Your task to perform on an android device: Is it going to rain this weekend? Image 0: 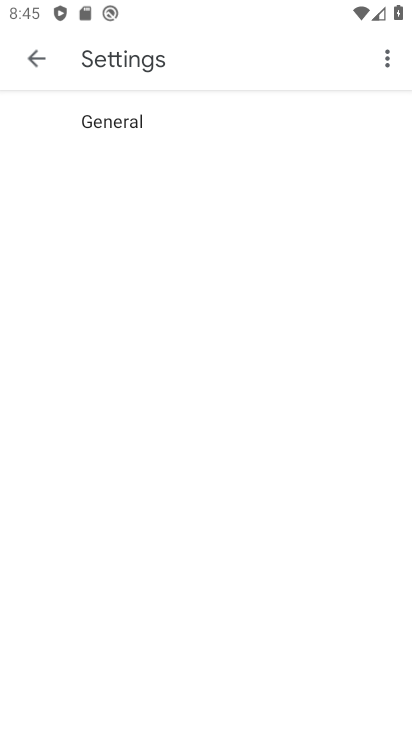
Step 0: press home button
Your task to perform on an android device: Is it going to rain this weekend? Image 1: 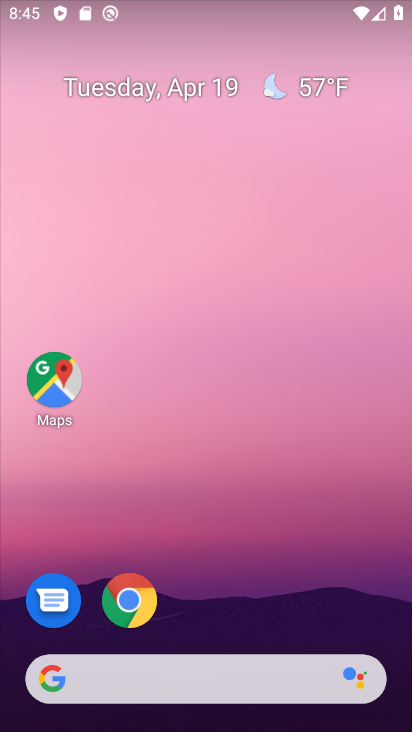
Step 1: click (228, 683)
Your task to perform on an android device: Is it going to rain this weekend? Image 2: 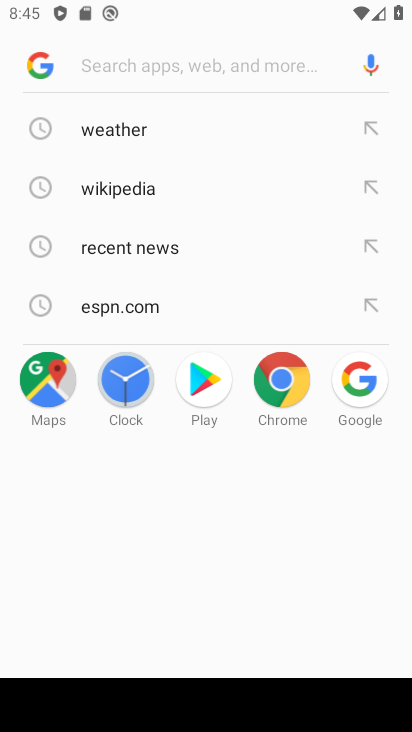
Step 2: click (124, 128)
Your task to perform on an android device: Is it going to rain this weekend? Image 3: 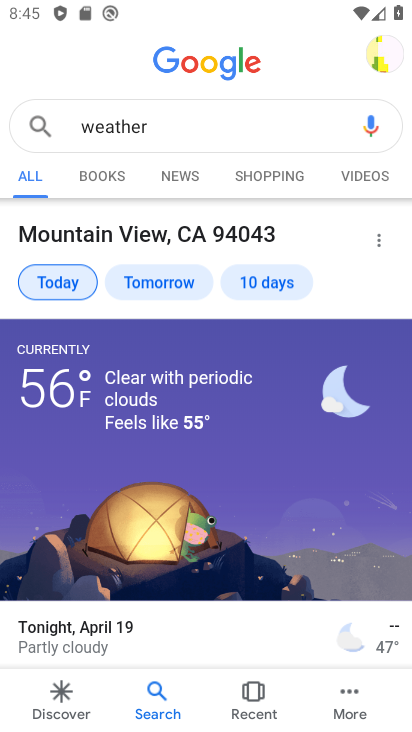
Step 3: click (270, 283)
Your task to perform on an android device: Is it going to rain this weekend? Image 4: 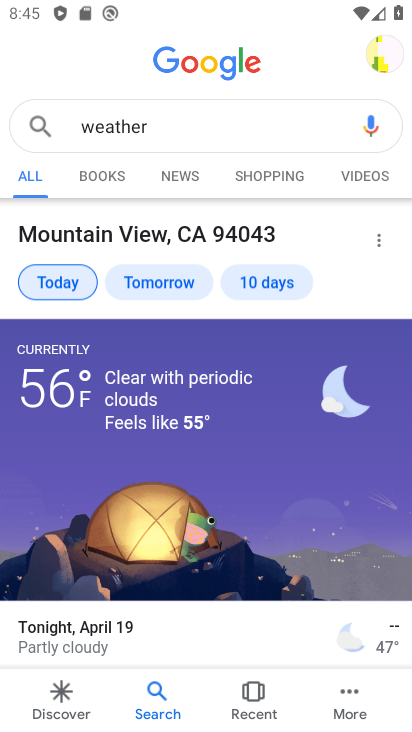
Step 4: click (270, 283)
Your task to perform on an android device: Is it going to rain this weekend? Image 5: 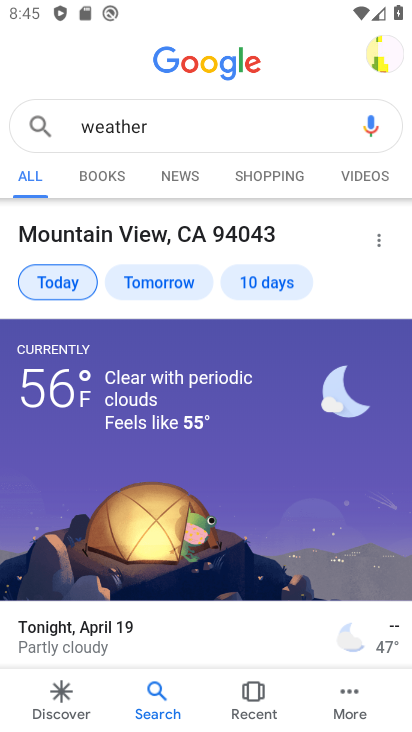
Step 5: drag from (285, 321) to (303, 131)
Your task to perform on an android device: Is it going to rain this weekend? Image 6: 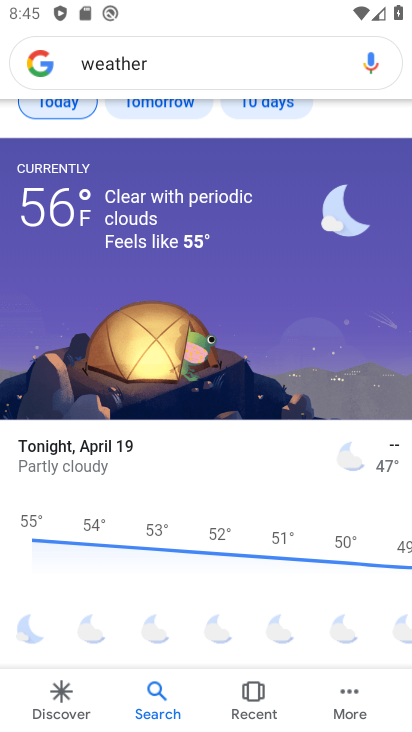
Step 6: drag from (245, 576) to (259, 267)
Your task to perform on an android device: Is it going to rain this weekend? Image 7: 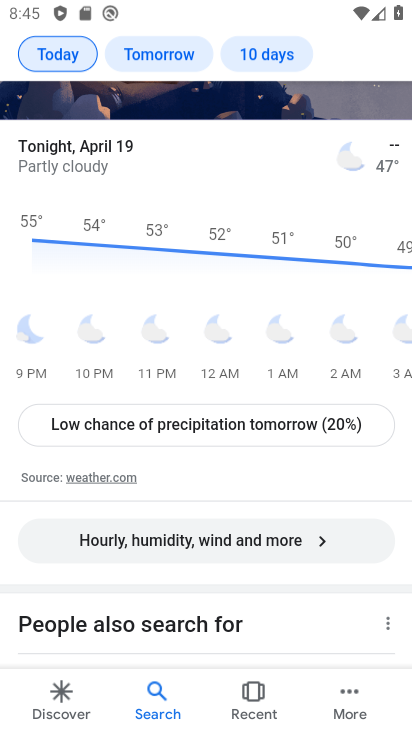
Step 7: drag from (281, 154) to (268, 451)
Your task to perform on an android device: Is it going to rain this weekend? Image 8: 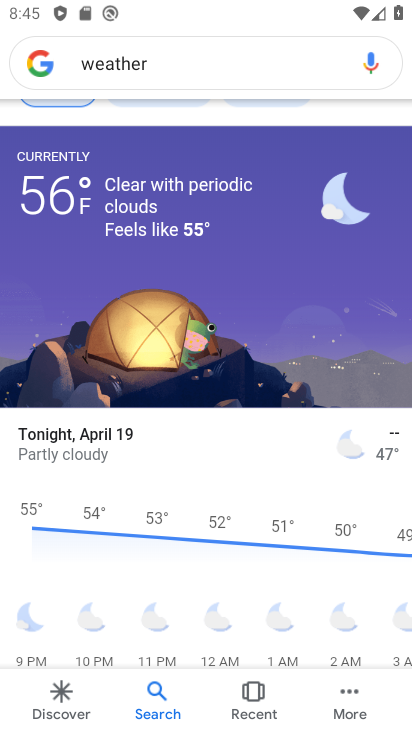
Step 8: drag from (259, 297) to (250, 462)
Your task to perform on an android device: Is it going to rain this weekend? Image 9: 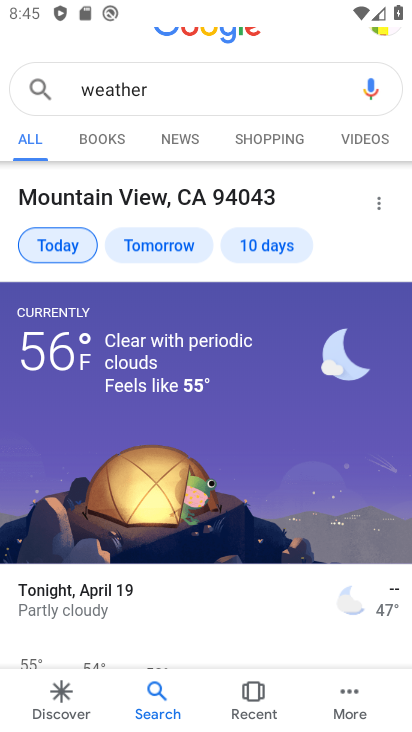
Step 9: click (267, 249)
Your task to perform on an android device: Is it going to rain this weekend? Image 10: 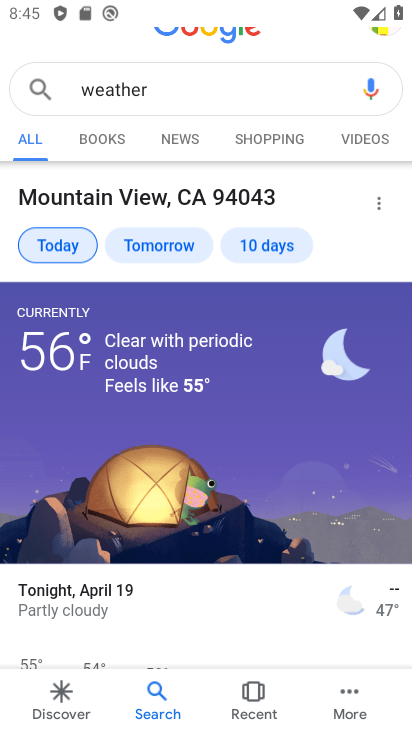
Step 10: click (267, 247)
Your task to perform on an android device: Is it going to rain this weekend? Image 11: 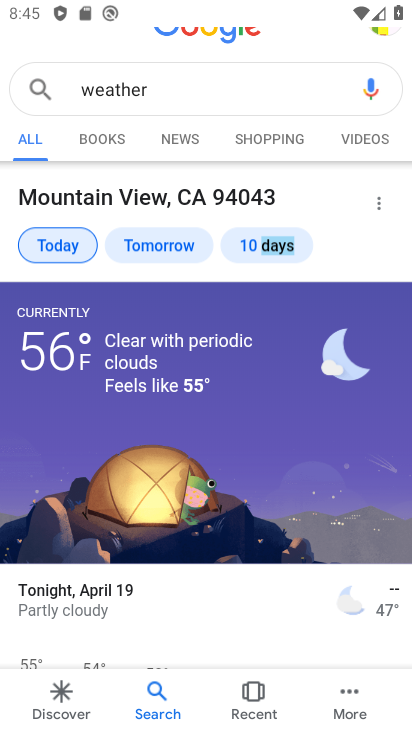
Step 11: click (268, 235)
Your task to perform on an android device: Is it going to rain this weekend? Image 12: 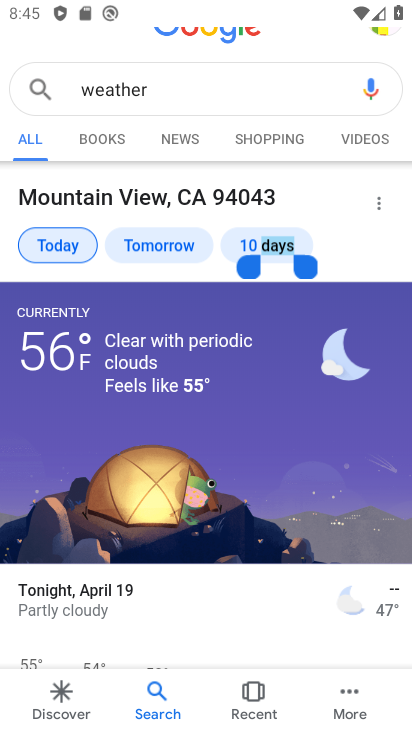
Step 12: task complete